Your task to perform on an android device: See recent photos Image 0: 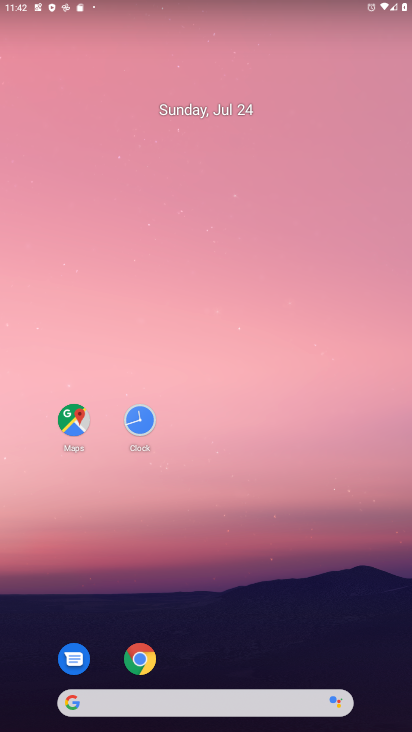
Step 0: drag from (370, 691) to (374, 232)
Your task to perform on an android device: See recent photos Image 1: 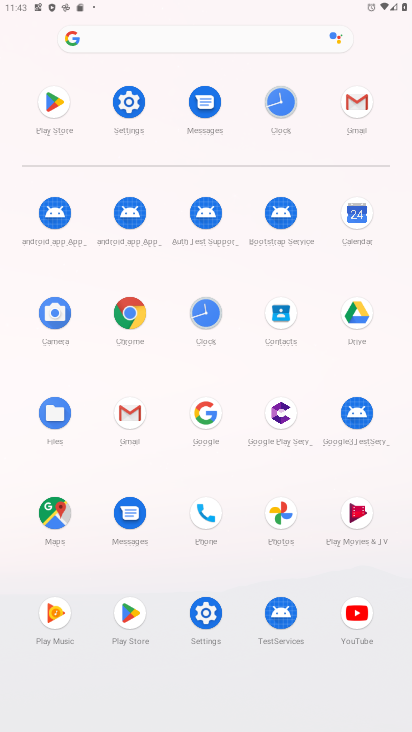
Step 1: click (280, 509)
Your task to perform on an android device: See recent photos Image 2: 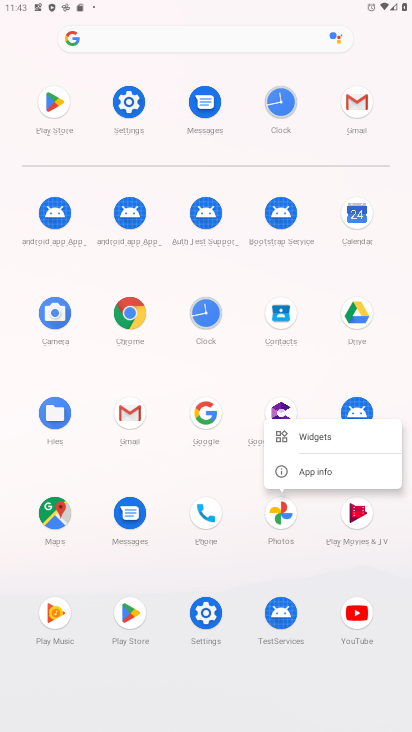
Step 2: click (290, 512)
Your task to perform on an android device: See recent photos Image 3: 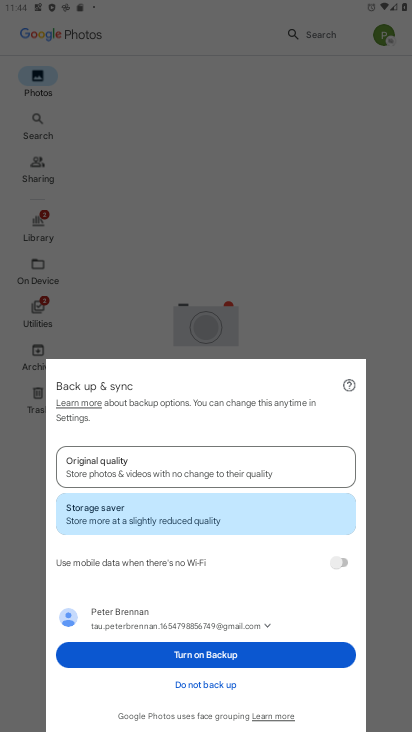
Step 3: task complete